Your task to perform on an android device: set the timer Image 0: 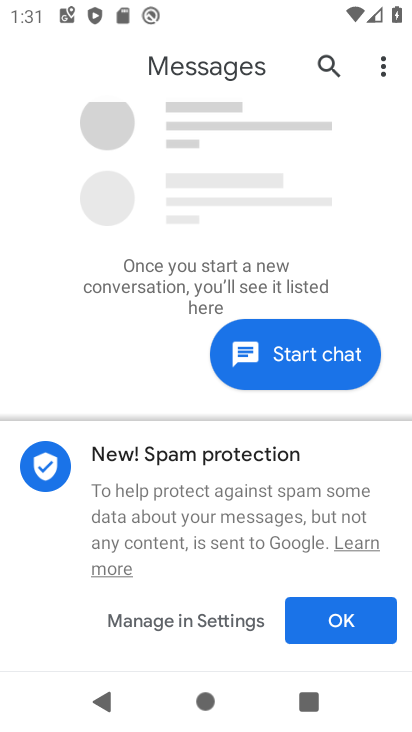
Step 0: press home button
Your task to perform on an android device: set the timer Image 1: 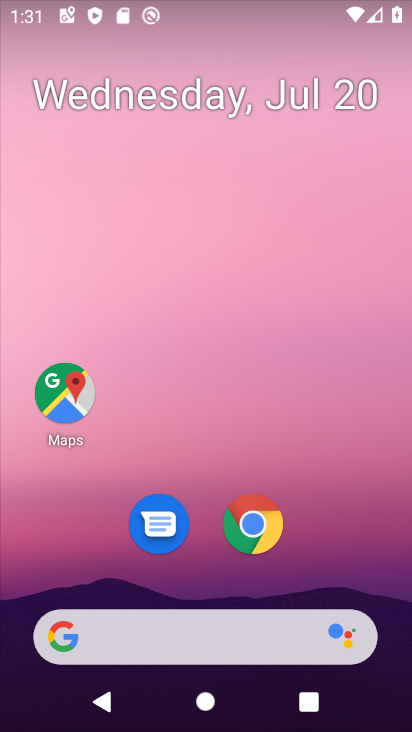
Step 1: drag from (337, 550) to (346, 61)
Your task to perform on an android device: set the timer Image 2: 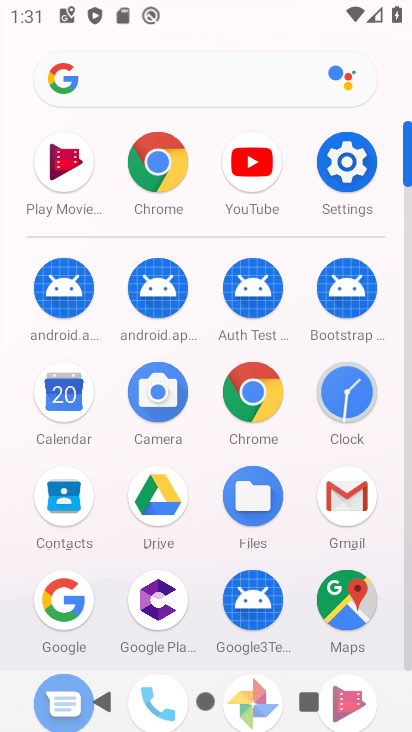
Step 2: click (336, 386)
Your task to perform on an android device: set the timer Image 3: 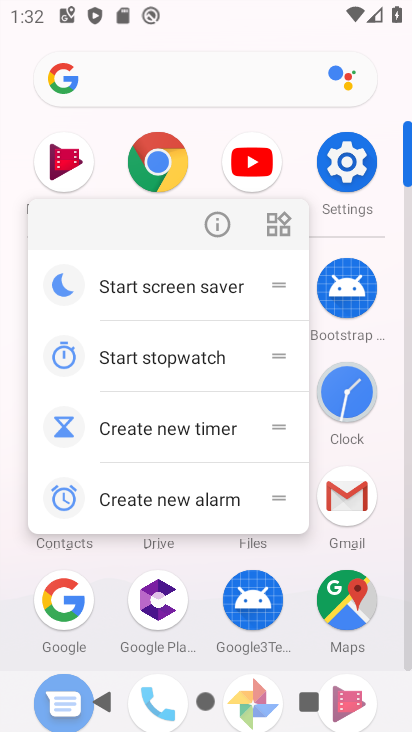
Step 3: click (365, 391)
Your task to perform on an android device: set the timer Image 4: 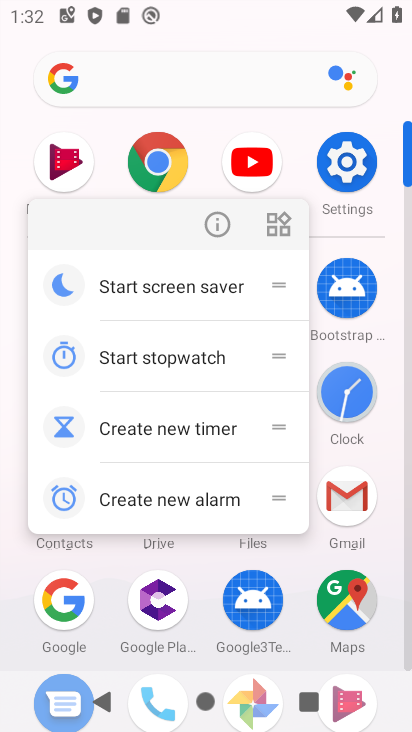
Step 4: click (365, 391)
Your task to perform on an android device: set the timer Image 5: 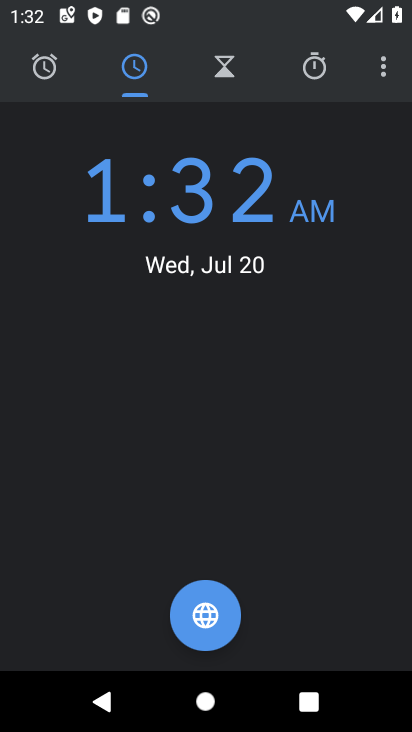
Step 5: click (235, 65)
Your task to perform on an android device: set the timer Image 6: 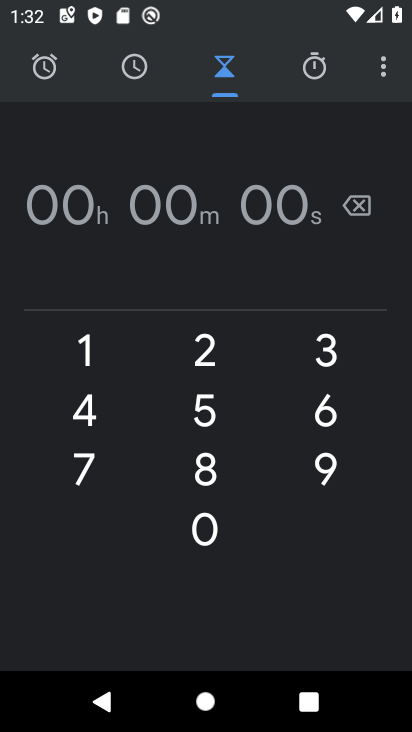
Step 6: click (96, 342)
Your task to perform on an android device: set the timer Image 7: 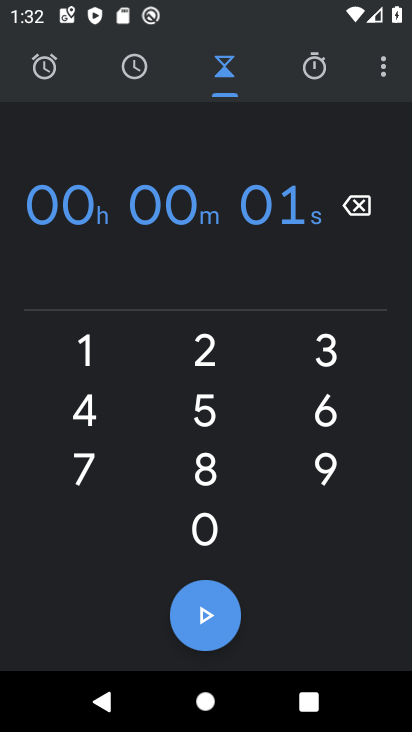
Step 7: click (83, 407)
Your task to perform on an android device: set the timer Image 8: 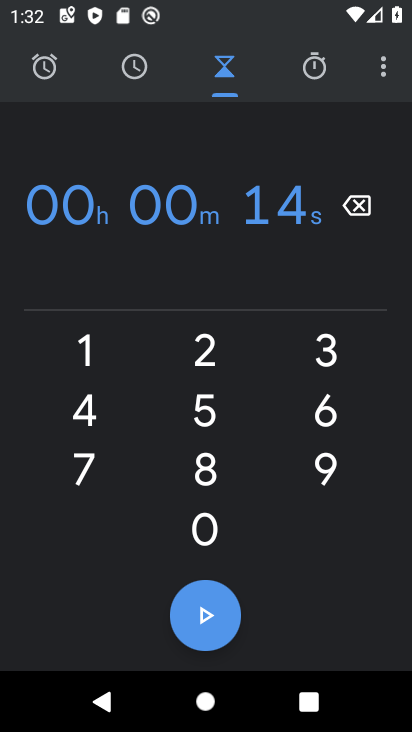
Step 8: task complete